Your task to perform on an android device: change the clock style Image 0: 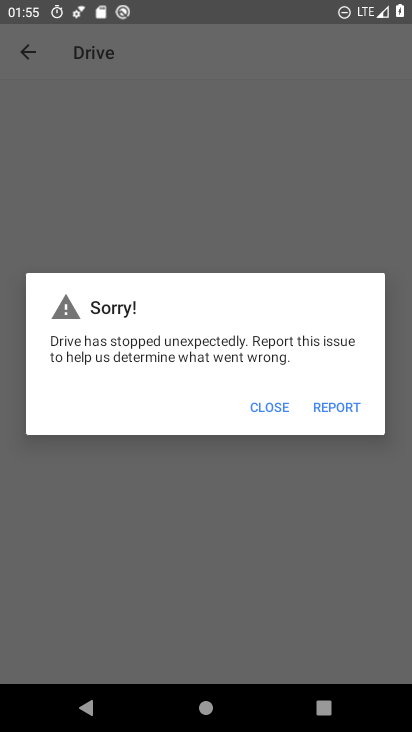
Step 0: press home button
Your task to perform on an android device: change the clock style Image 1: 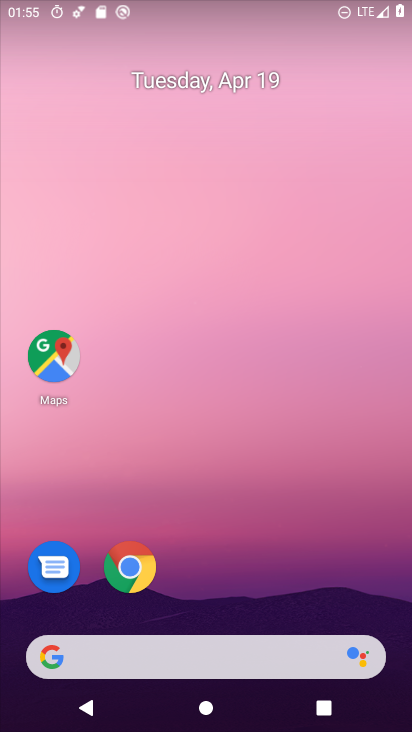
Step 1: drag from (274, 610) to (185, 114)
Your task to perform on an android device: change the clock style Image 2: 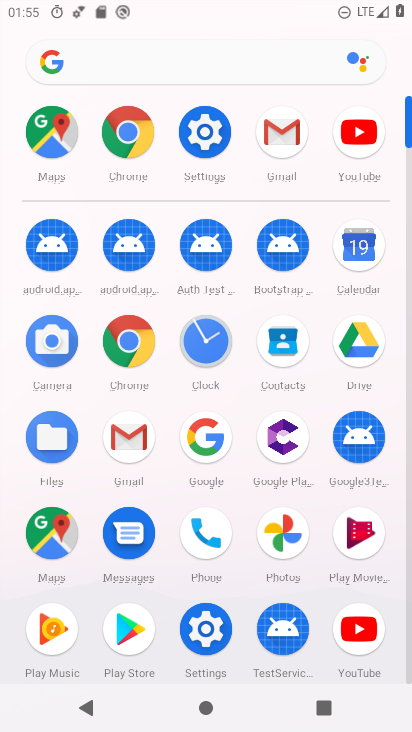
Step 2: click (206, 331)
Your task to perform on an android device: change the clock style Image 3: 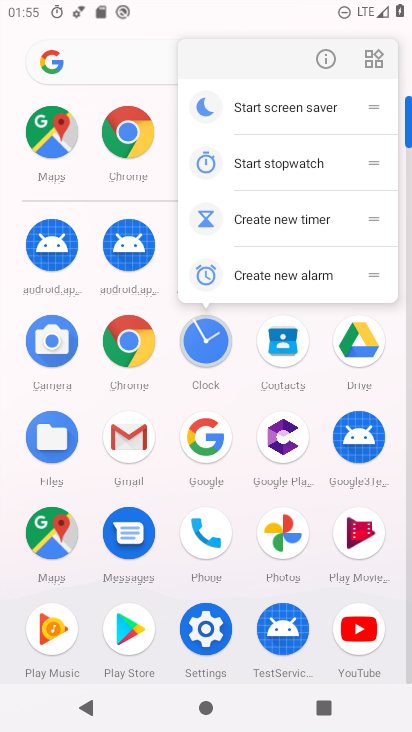
Step 3: click (214, 638)
Your task to perform on an android device: change the clock style Image 4: 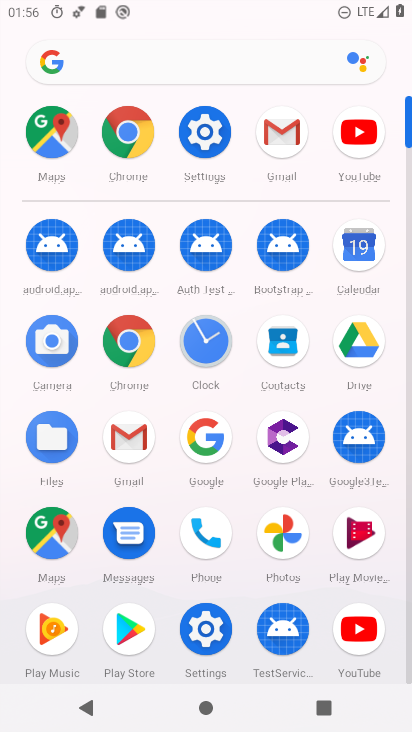
Step 4: click (208, 347)
Your task to perform on an android device: change the clock style Image 5: 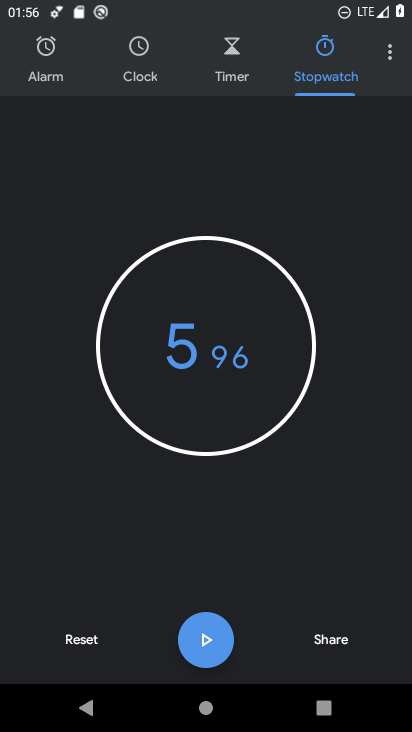
Step 5: click (389, 54)
Your task to perform on an android device: change the clock style Image 6: 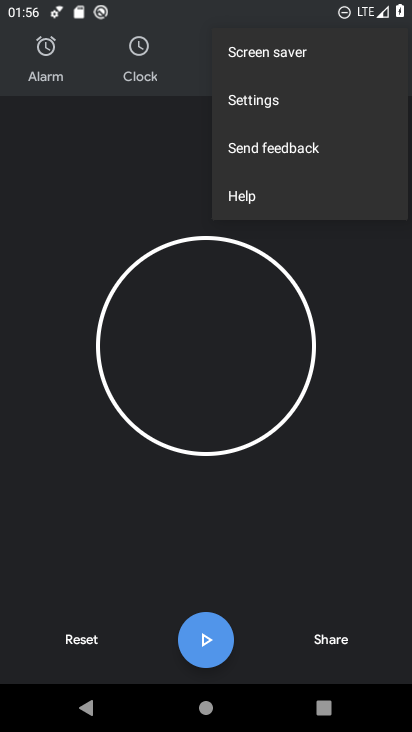
Step 6: click (271, 107)
Your task to perform on an android device: change the clock style Image 7: 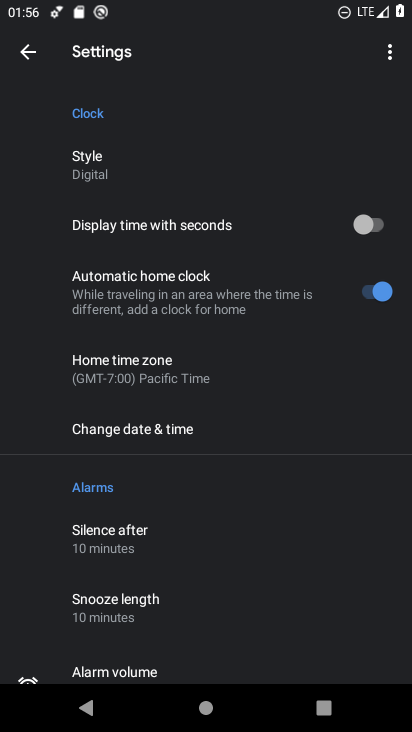
Step 7: click (148, 164)
Your task to perform on an android device: change the clock style Image 8: 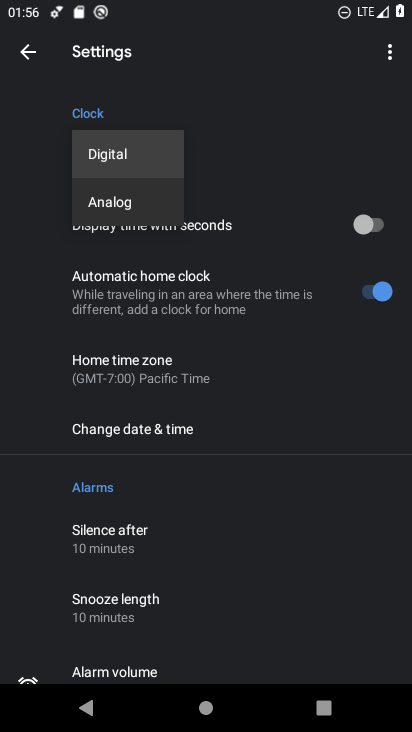
Step 8: click (143, 206)
Your task to perform on an android device: change the clock style Image 9: 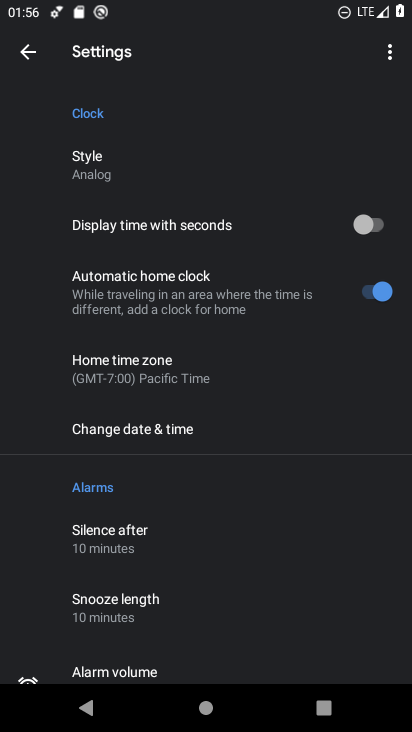
Step 9: task complete